Your task to perform on an android device: Open Google Image 0: 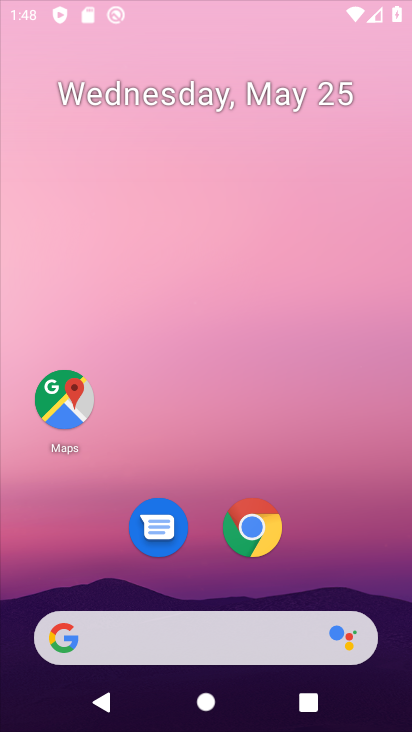
Step 0: click (282, 477)
Your task to perform on an android device: Open Google Image 1: 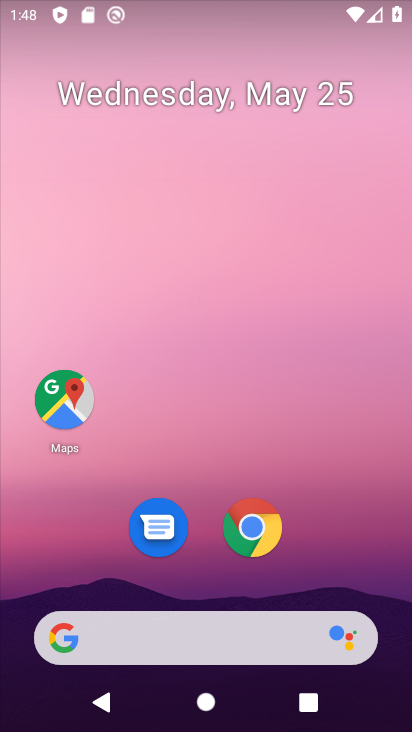
Step 1: drag from (210, 572) to (222, 51)
Your task to perform on an android device: Open Google Image 2: 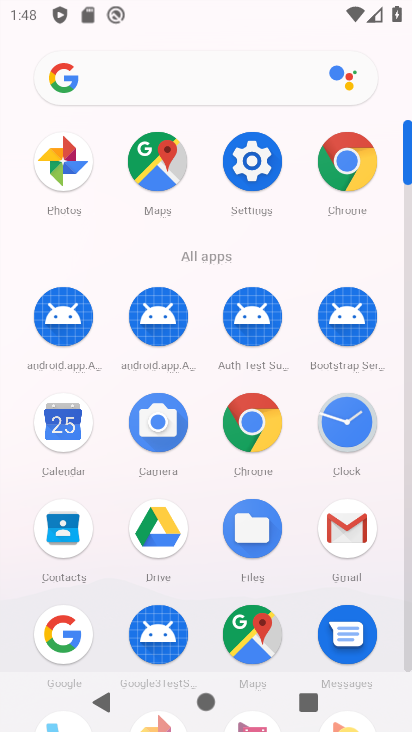
Step 2: click (63, 637)
Your task to perform on an android device: Open Google Image 3: 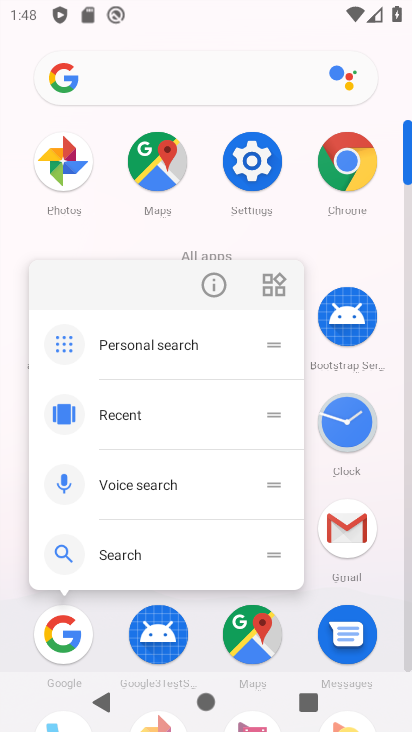
Step 3: click (205, 292)
Your task to perform on an android device: Open Google Image 4: 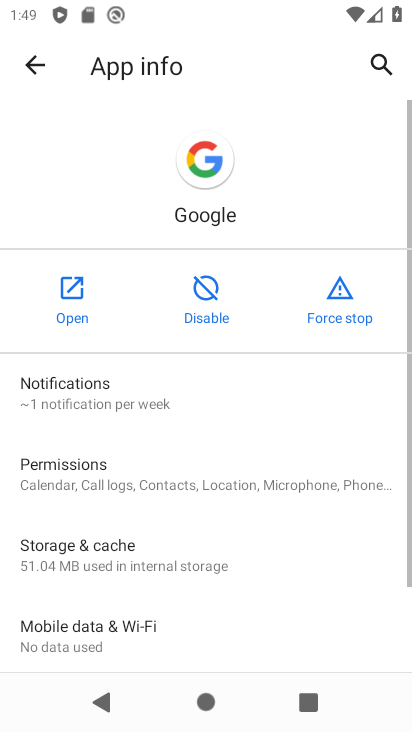
Step 4: click (60, 287)
Your task to perform on an android device: Open Google Image 5: 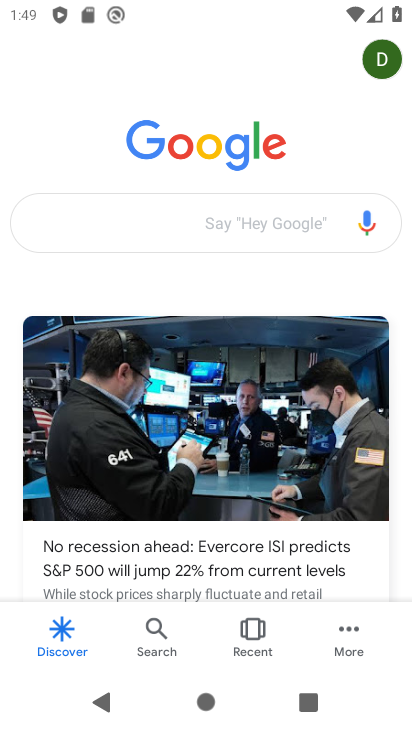
Step 5: task complete